Your task to perform on an android device: See recent photos Image 0: 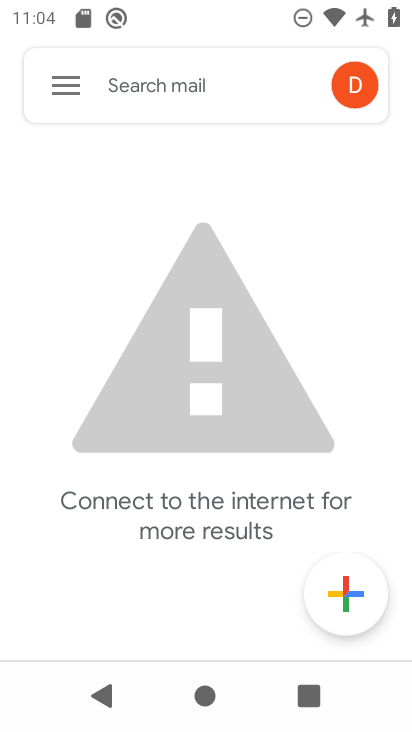
Step 0: press back button
Your task to perform on an android device: See recent photos Image 1: 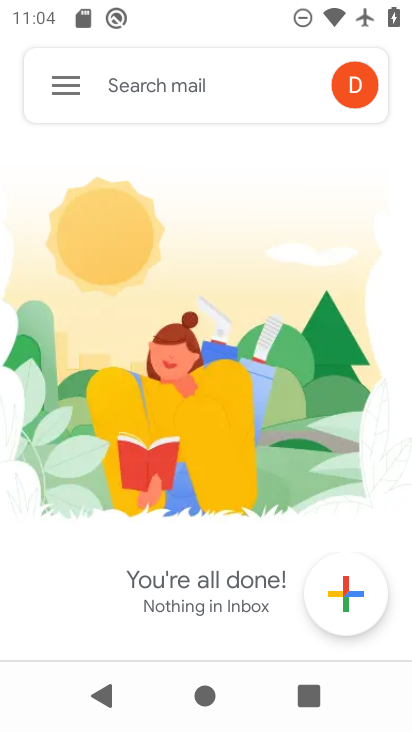
Step 1: press back button
Your task to perform on an android device: See recent photos Image 2: 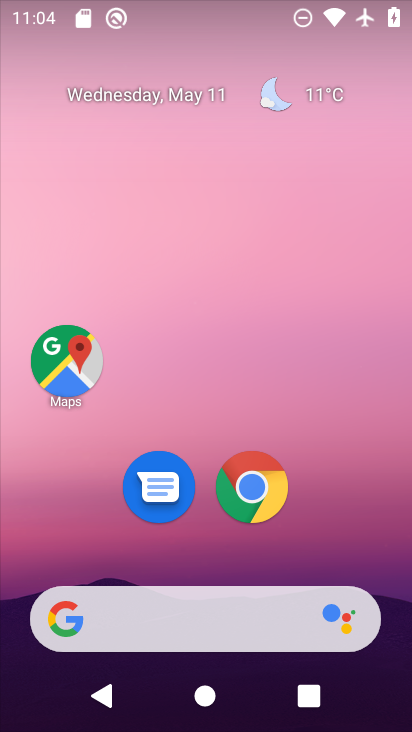
Step 2: drag from (353, 528) to (290, 7)
Your task to perform on an android device: See recent photos Image 3: 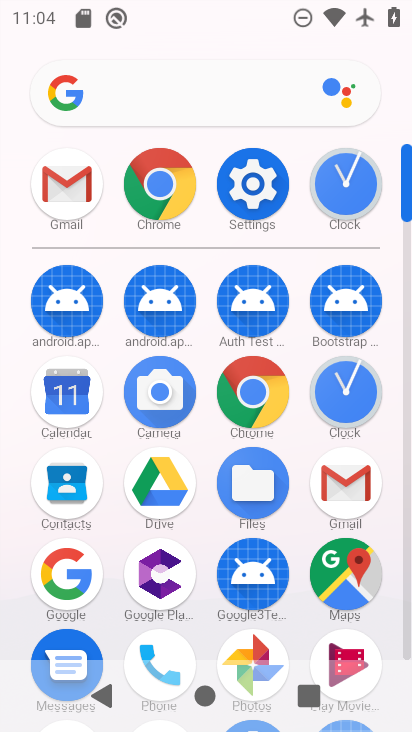
Step 3: drag from (18, 549) to (16, 212)
Your task to perform on an android device: See recent photos Image 4: 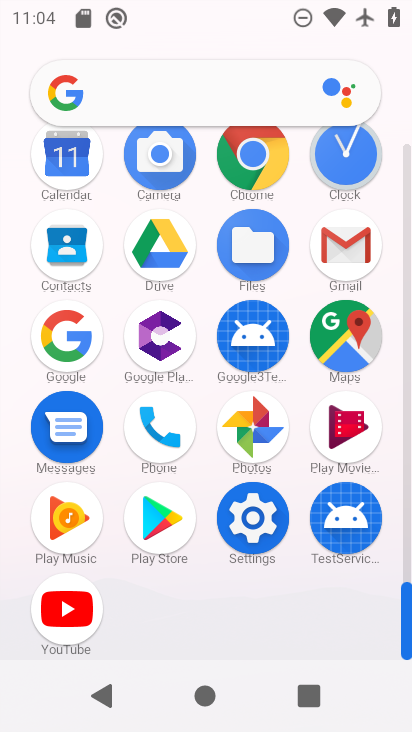
Step 4: click (256, 424)
Your task to perform on an android device: See recent photos Image 5: 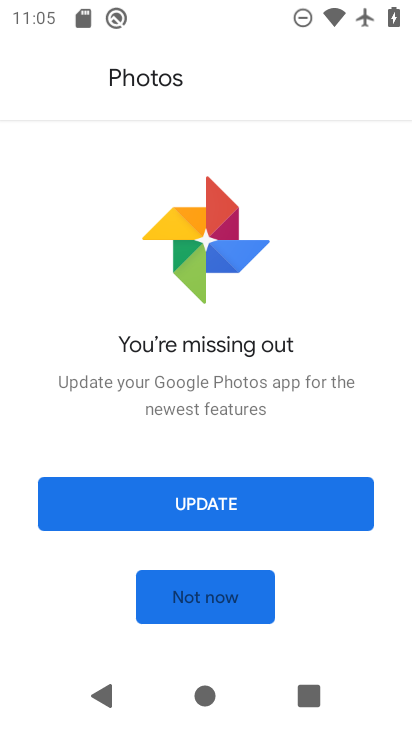
Step 5: click (216, 595)
Your task to perform on an android device: See recent photos Image 6: 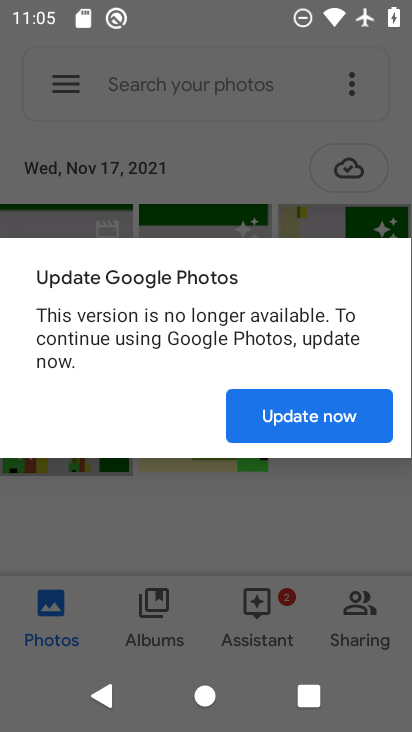
Step 6: click (282, 409)
Your task to perform on an android device: See recent photos Image 7: 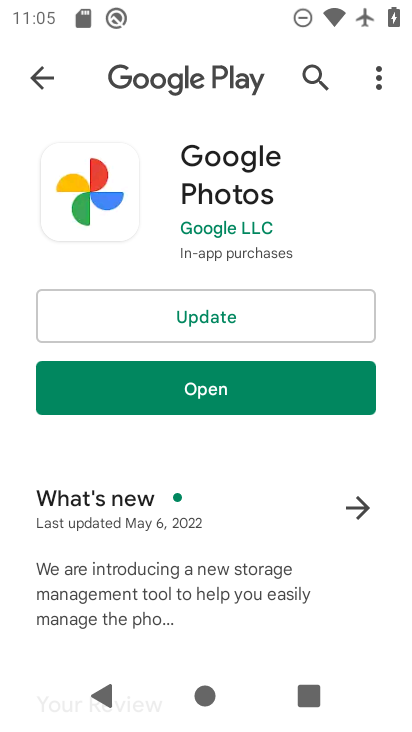
Step 7: click (190, 306)
Your task to perform on an android device: See recent photos Image 8: 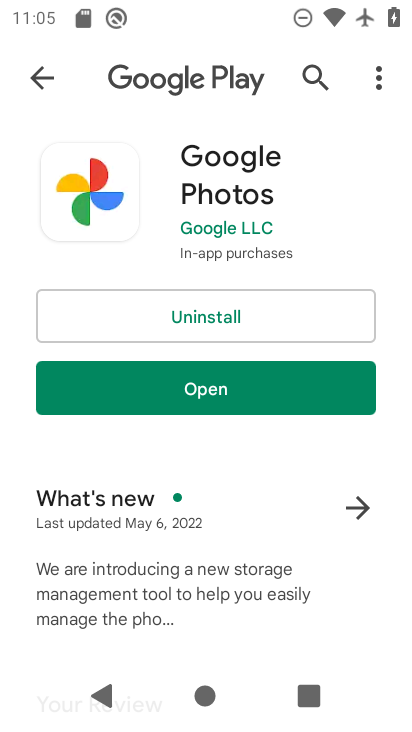
Step 8: click (203, 385)
Your task to perform on an android device: See recent photos Image 9: 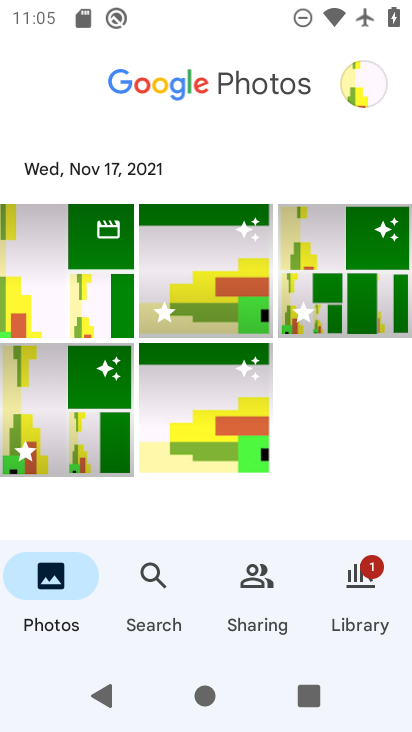
Step 9: task complete